Your task to perform on an android device: Search for Italian restaurants on Maps Image 0: 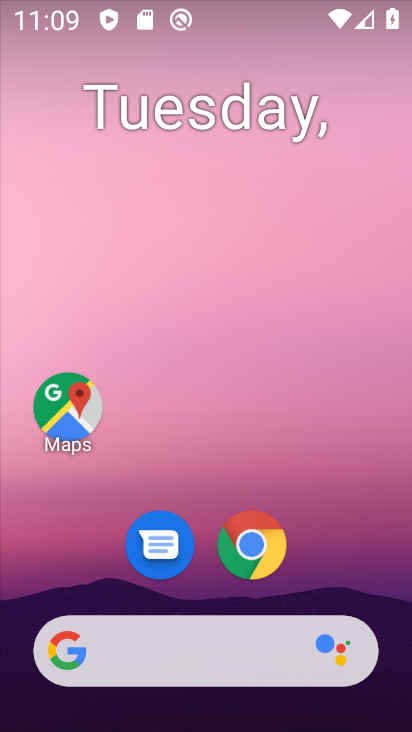
Step 0: click (64, 400)
Your task to perform on an android device: Search for Italian restaurants on Maps Image 1: 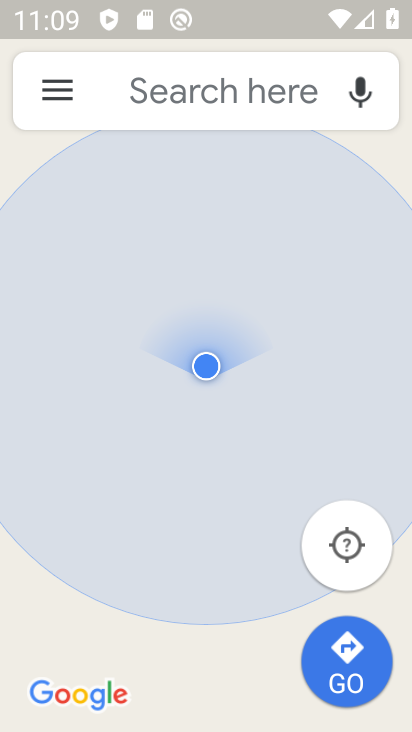
Step 1: click (159, 78)
Your task to perform on an android device: Search for Italian restaurants on Maps Image 2: 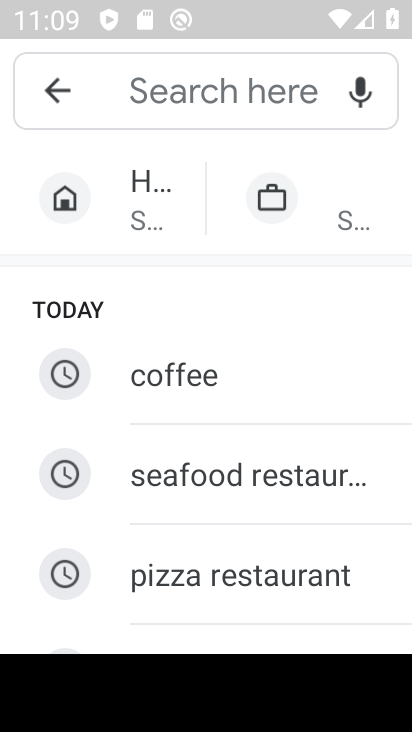
Step 2: drag from (242, 552) to (267, 230)
Your task to perform on an android device: Search for Italian restaurants on Maps Image 3: 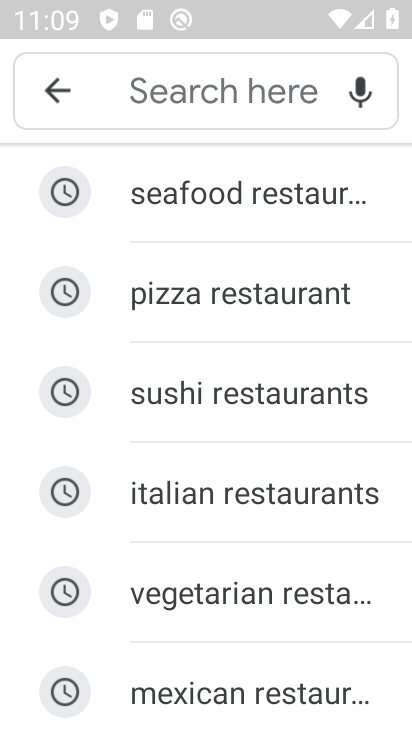
Step 3: click (243, 494)
Your task to perform on an android device: Search for Italian restaurants on Maps Image 4: 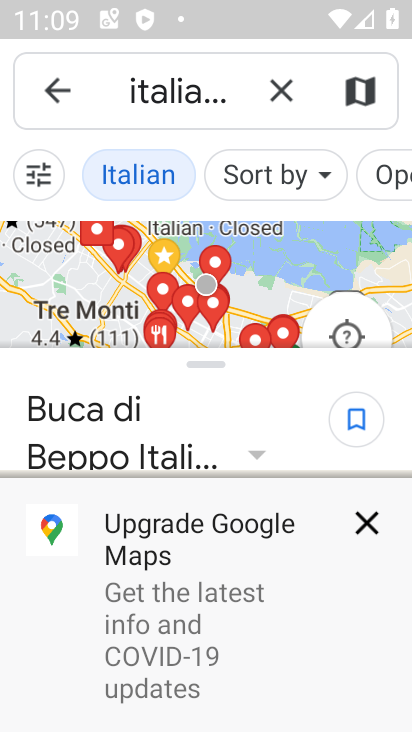
Step 4: task complete